Your task to perform on an android device: Go to display settings Image 0: 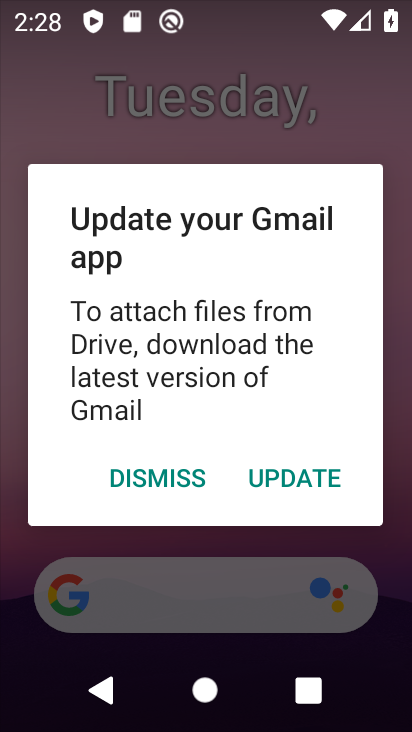
Step 0: click (166, 479)
Your task to perform on an android device: Go to display settings Image 1: 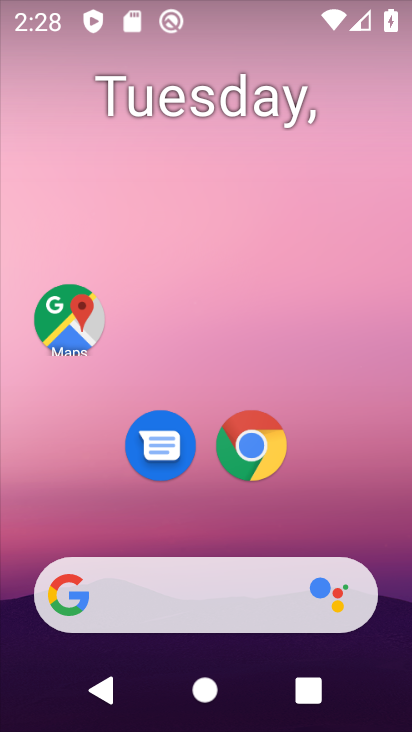
Step 1: drag from (314, 459) to (335, 57)
Your task to perform on an android device: Go to display settings Image 2: 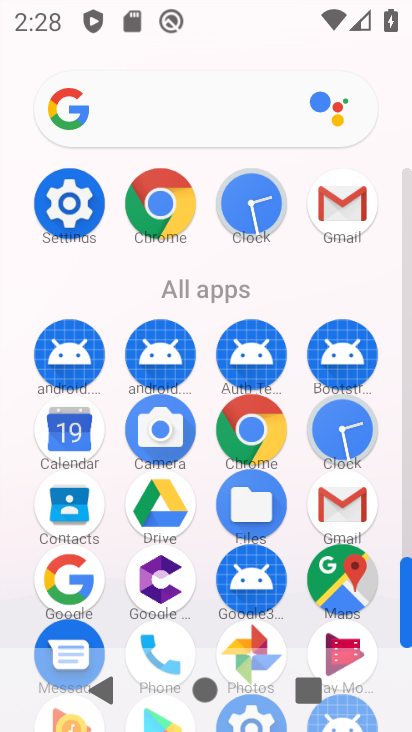
Step 2: click (57, 212)
Your task to perform on an android device: Go to display settings Image 3: 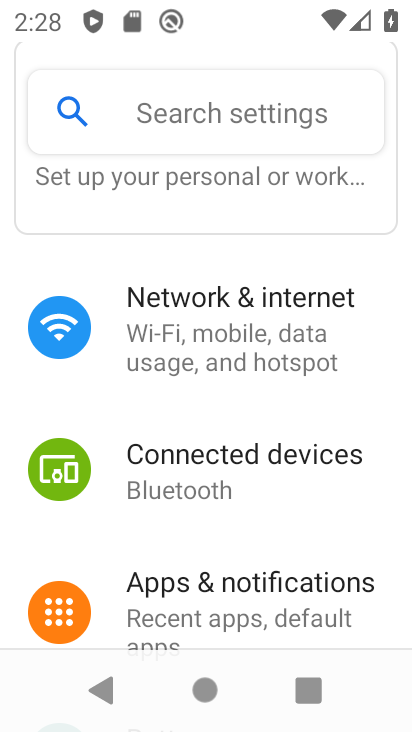
Step 3: drag from (248, 542) to (261, 261)
Your task to perform on an android device: Go to display settings Image 4: 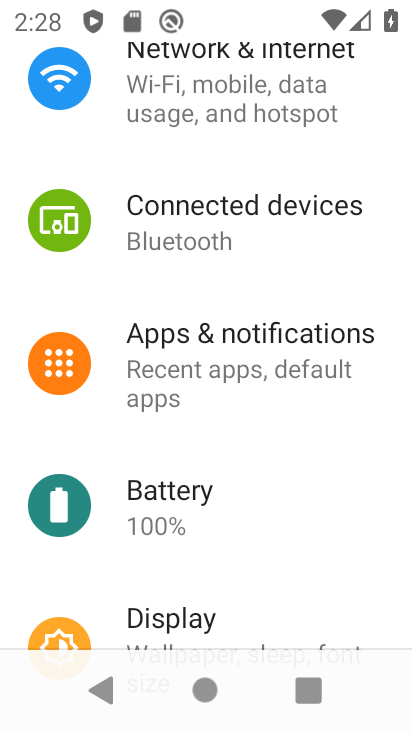
Step 4: drag from (296, 436) to (256, 144)
Your task to perform on an android device: Go to display settings Image 5: 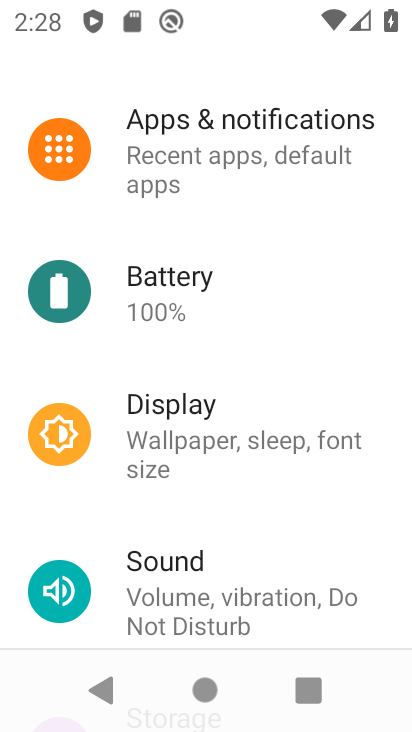
Step 5: drag from (284, 520) to (331, 192)
Your task to perform on an android device: Go to display settings Image 6: 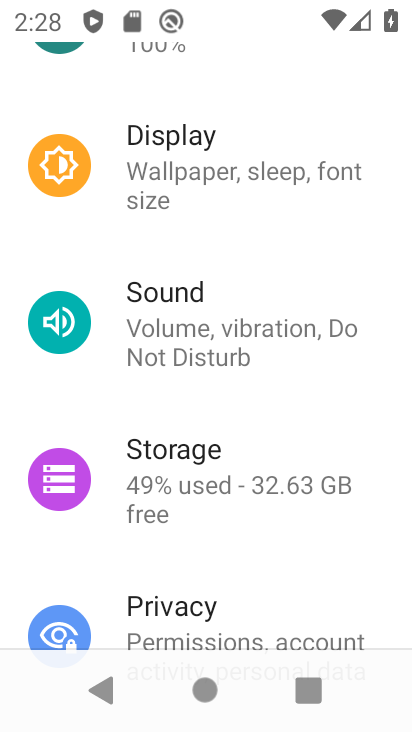
Step 6: drag from (253, 576) to (309, 186)
Your task to perform on an android device: Go to display settings Image 7: 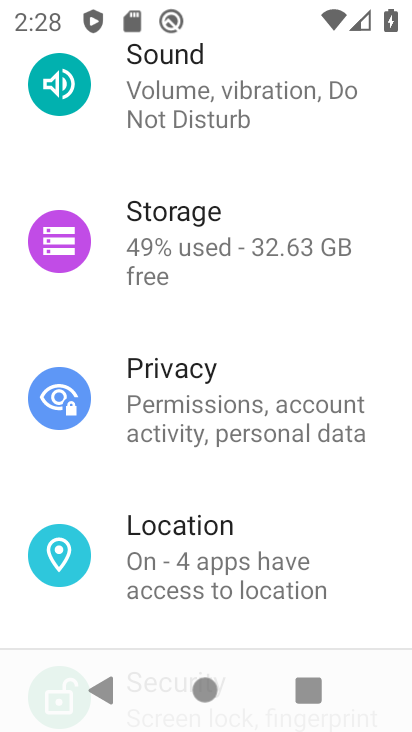
Step 7: drag from (309, 187) to (319, 480)
Your task to perform on an android device: Go to display settings Image 8: 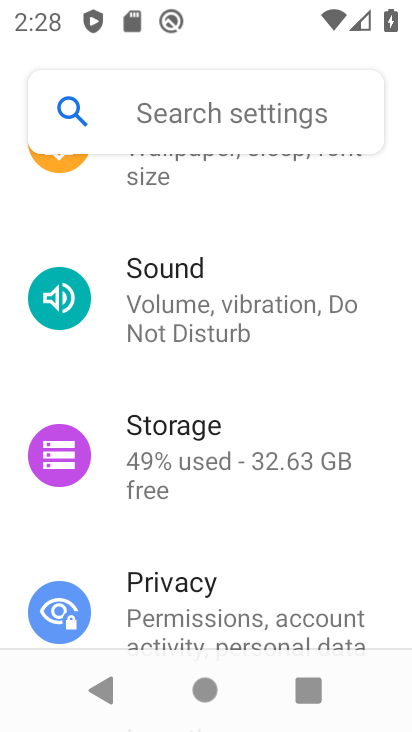
Step 8: drag from (367, 211) to (298, 486)
Your task to perform on an android device: Go to display settings Image 9: 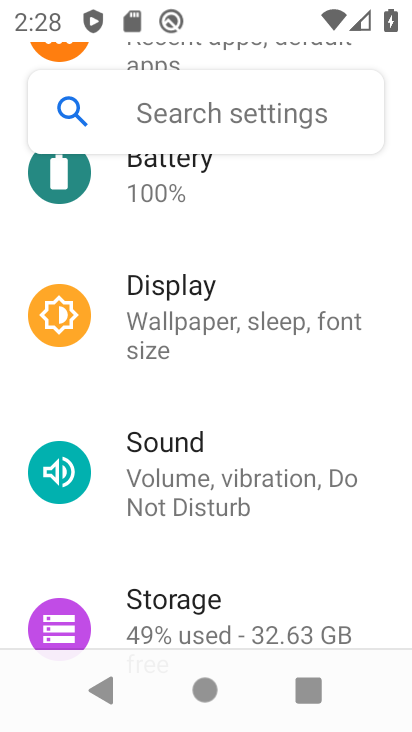
Step 9: drag from (280, 350) to (259, 544)
Your task to perform on an android device: Go to display settings Image 10: 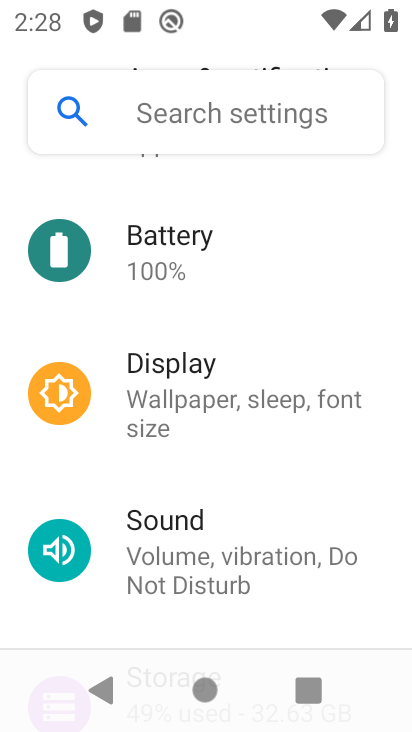
Step 10: click (191, 389)
Your task to perform on an android device: Go to display settings Image 11: 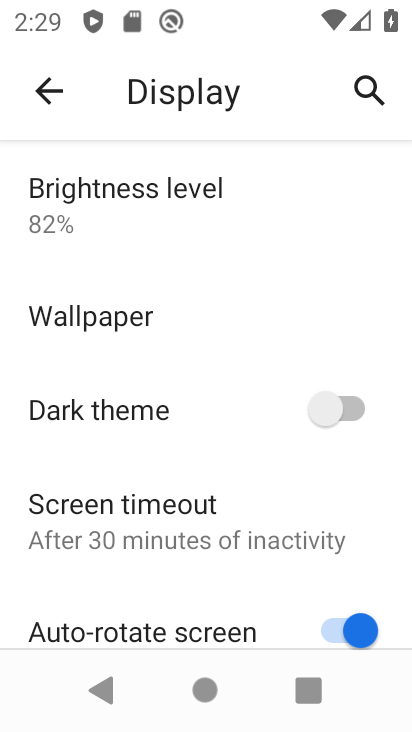
Step 11: task complete